Your task to perform on an android device: star an email in the gmail app Image 0: 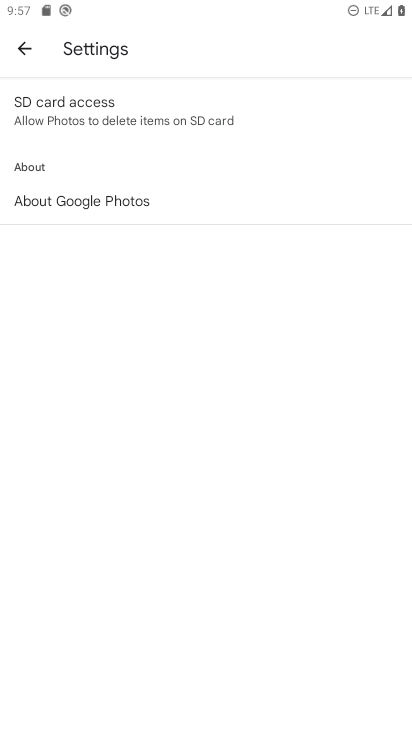
Step 0: press home button
Your task to perform on an android device: star an email in the gmail app Image 1: 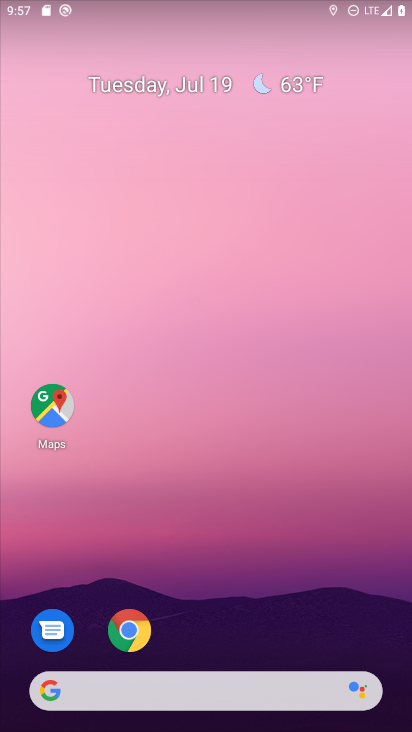
Step 1: drag from (210, 690) to (220, 66)
Your task to perform on an android device: star an email in the gmail app Image 2: 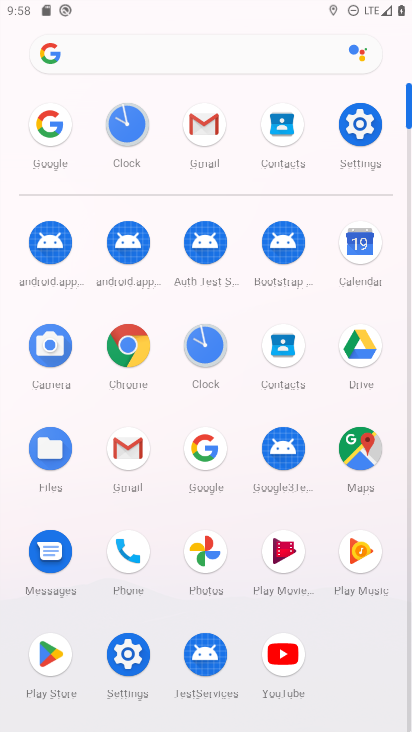
Step 2: click (203, 121)
Your task to perform on an android device: star an email in the gmail app Image 3: 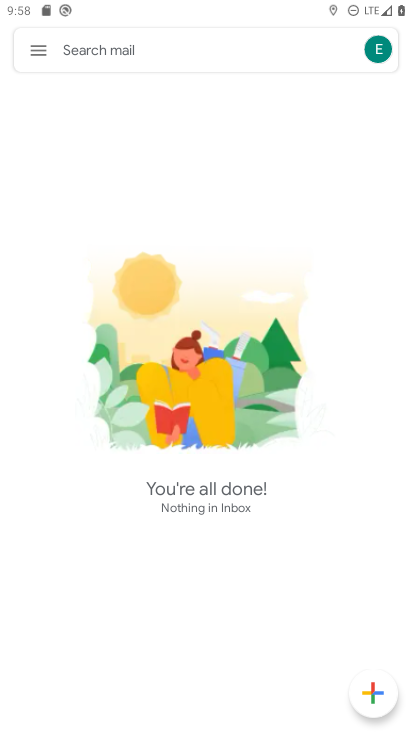
Step 3: click (42, 43)
Your task to perform on an android device: star an email in the gmail app Image 4: 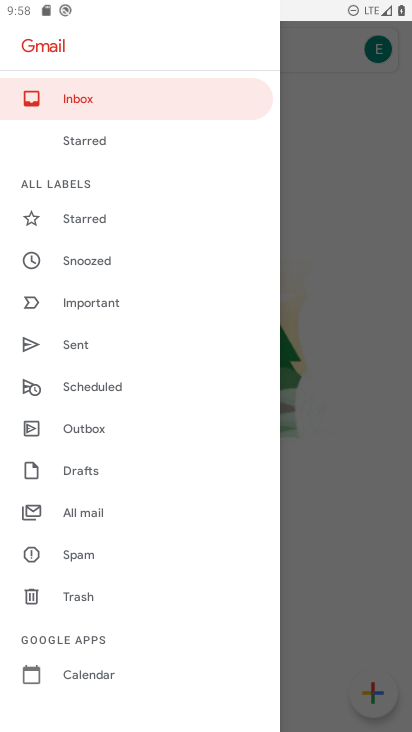
Step 4: click (89, 508)
Your task to perform on an android device: star an email in the gmail app Image 5: 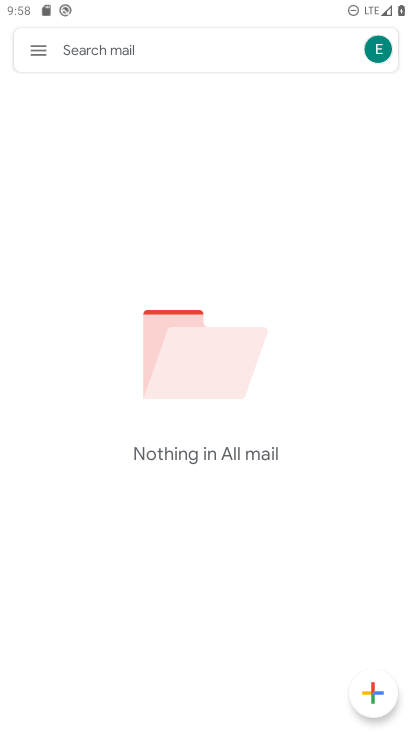
Step 5: click (37, 55)
Your task to perform on an android device: star an email in the gmail app Image 6: 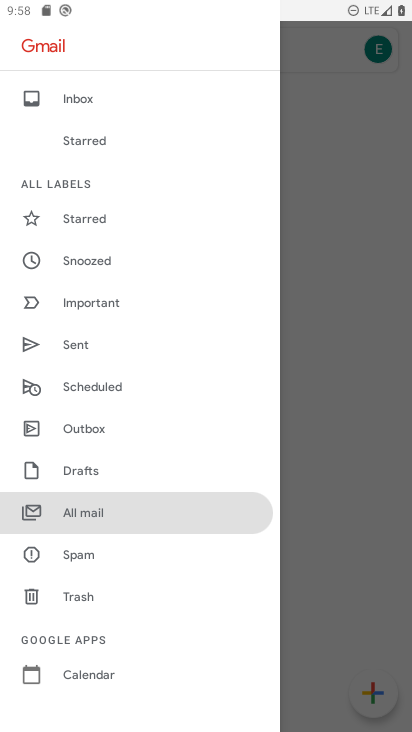
Step 6: click (76, 215)
Your task to perform on an android device: star an email in the gmail app Image 7: 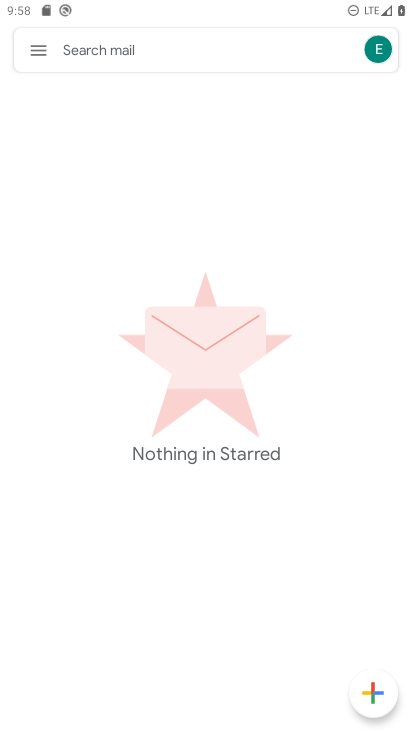
Step 7: click (32, 52)
Your task to perform on an android device: star an email in the gmail app Image 8: 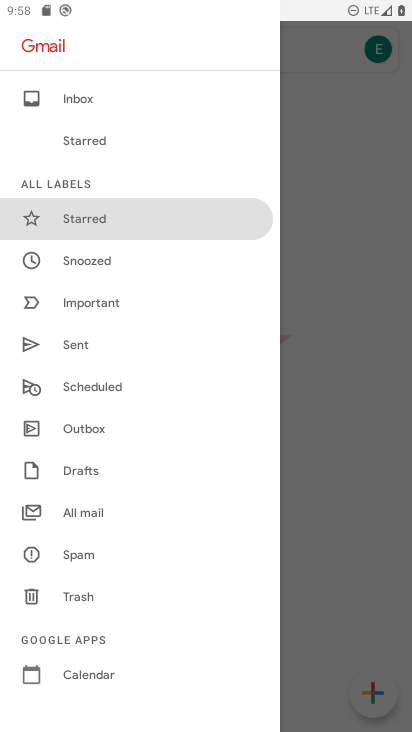
Step 8: click (97, 258)
Your task to perform on an android device: star an email in the gmail app Image 9: 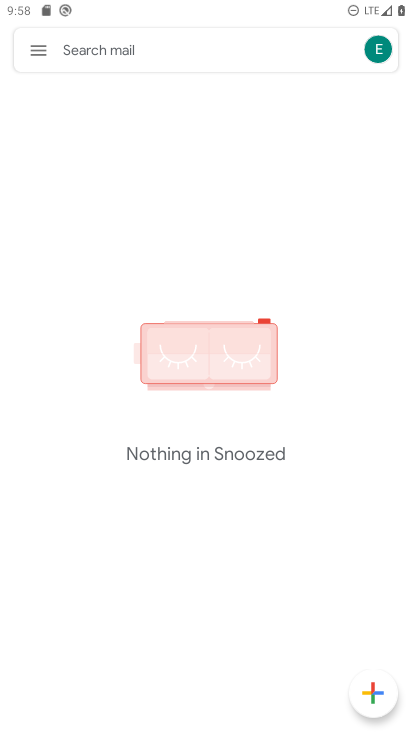
Step 9: click (36, 54)
Your task to perform on an android device: star an email in the gmail app Image 10: 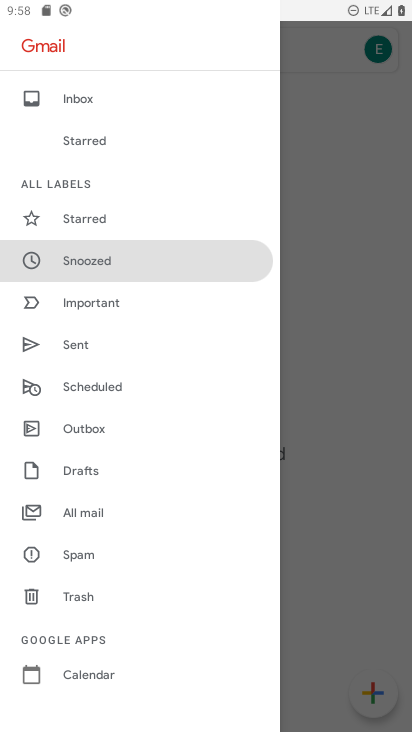
Step 10: click (82, 303)
Your task to perform on an android device: star an email in the gmail app Image 11: 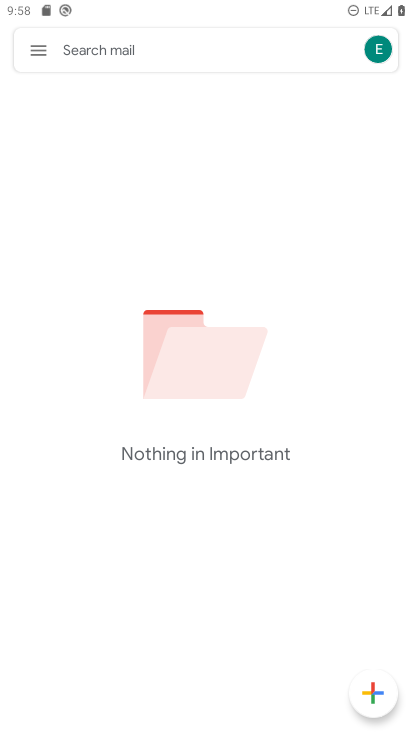
Step 11: click (46, 50)
Your task to perform on an android device: star an email in the gmail app Image 12: 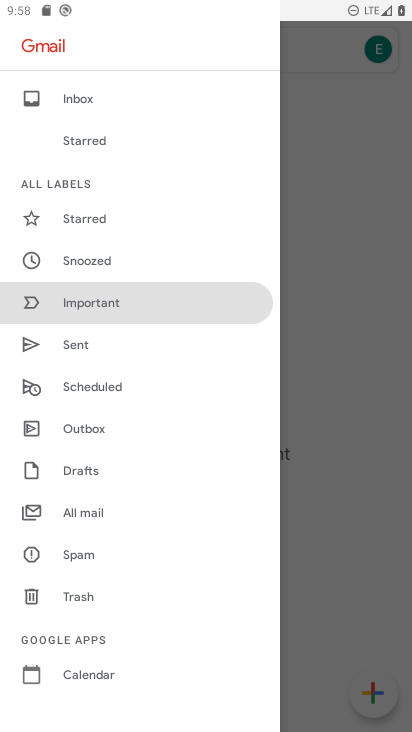
Step 12: click (83, 349)
Your task to perform on an android device: star an email in the gmail app Image 13: 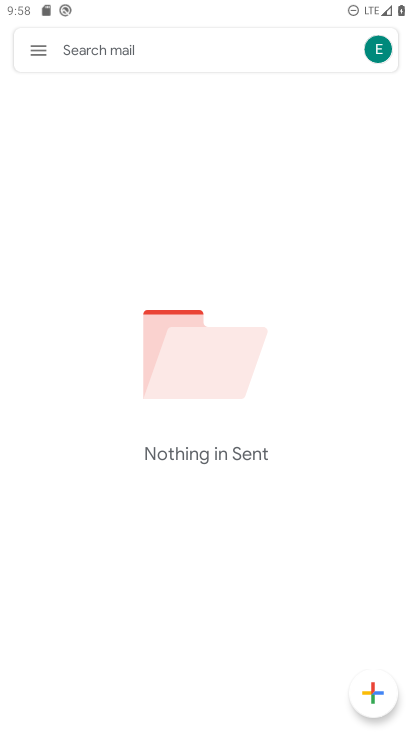
Step 13: click (37, 44)
Your task to perform on an android device: star an email in the gmail app Image 14: 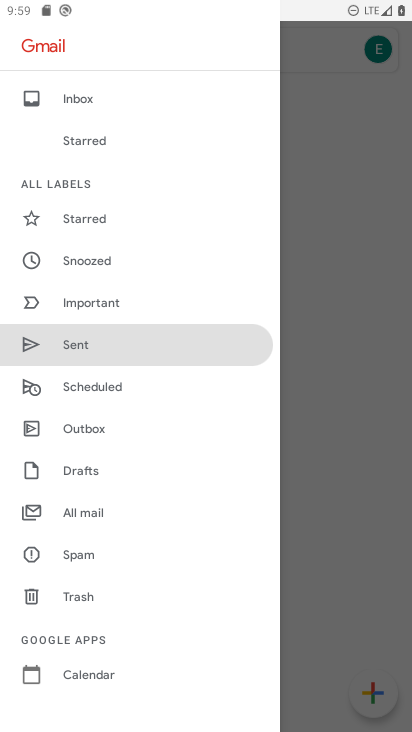
Step 14: click (93, 386)
Your task to perform on an android device: star an email in the gmail app Image 15: 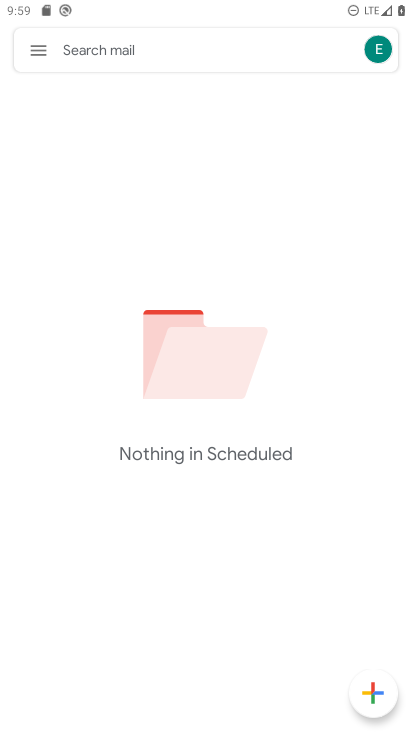
Step 15: click (43, 57)
Your task to perform on an android device: star an email in the gmail app Image 16: 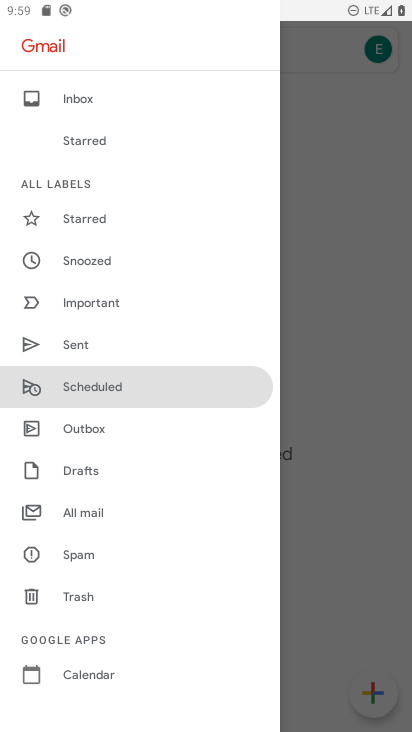
Step 16: click (67, 427)
Your task to perform on an android device: star an email in the gmail app Image 17: 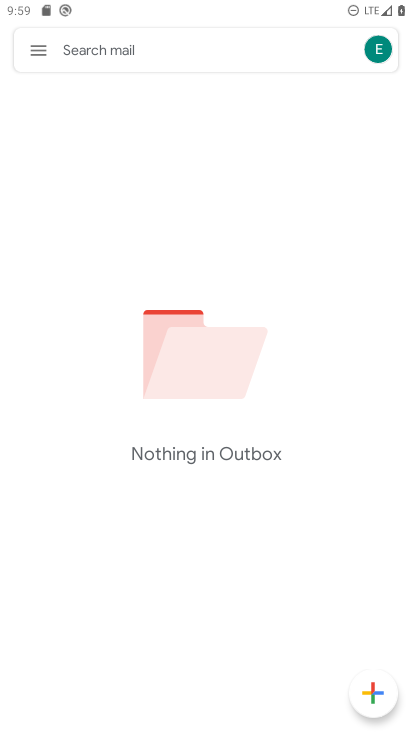
Step 17: click (40, 50)
Your task to perform on an android device: star an email in the gmail app Image 18: 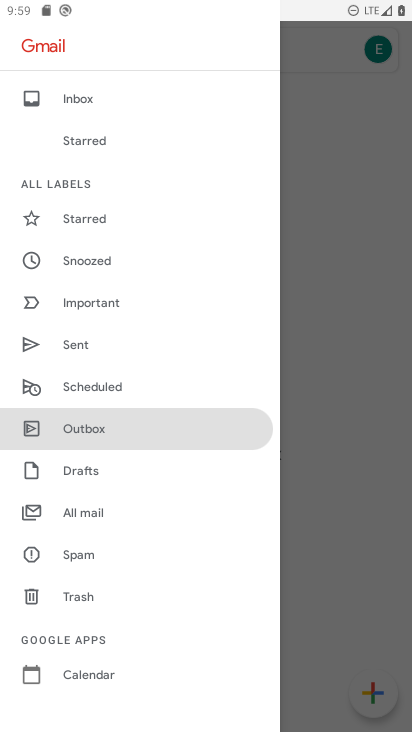
Step 18: click (84, 472)
Your task to perform on an android device: star an email in the gmail app Image 19: 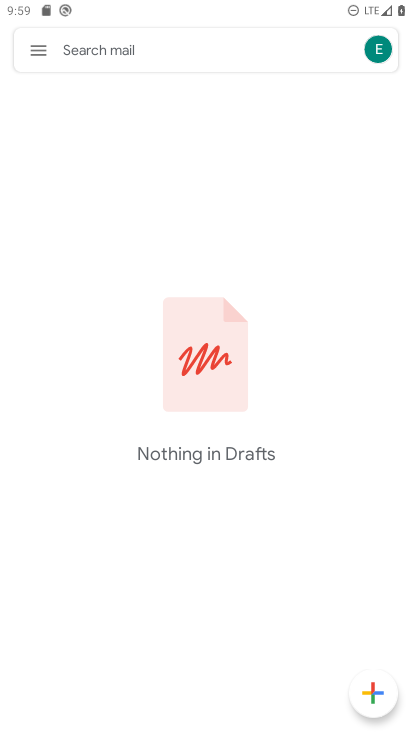
Step 19: click (46, 57)
Your task to perform on an android device: star an email in the gmail app Image 20: 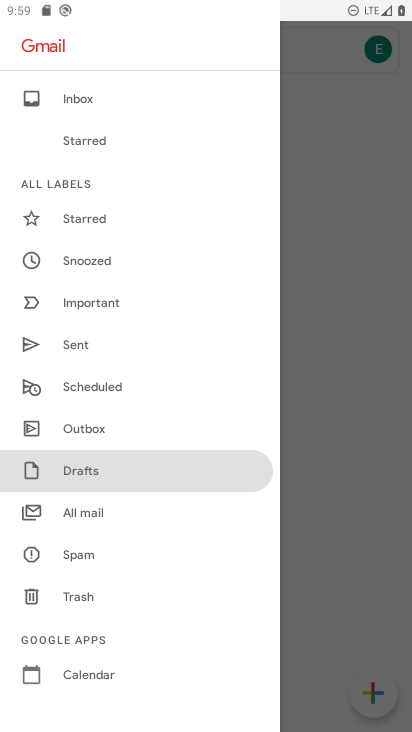
Step 20: click (64, 521)
Your task to perform on an android device: star an email in the gmail app Image 21: 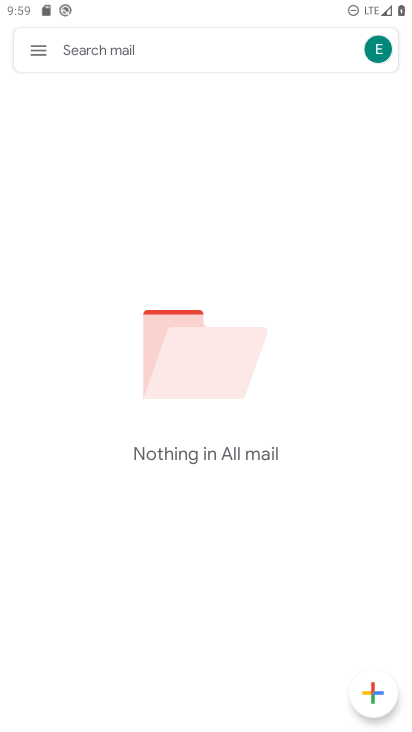
Step 21: click (38, 51)
Your task to perform on an android device: star an email in the gmail app Image 22: 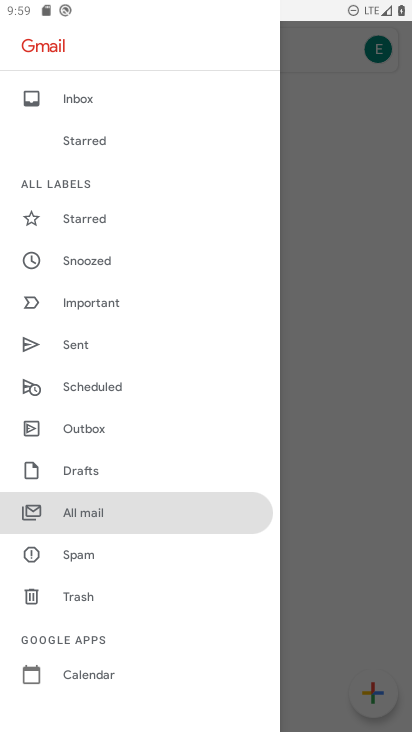
Step 22: click (101, 551)
Your task to perform on an android device: star an email in the gmail app Image 23: 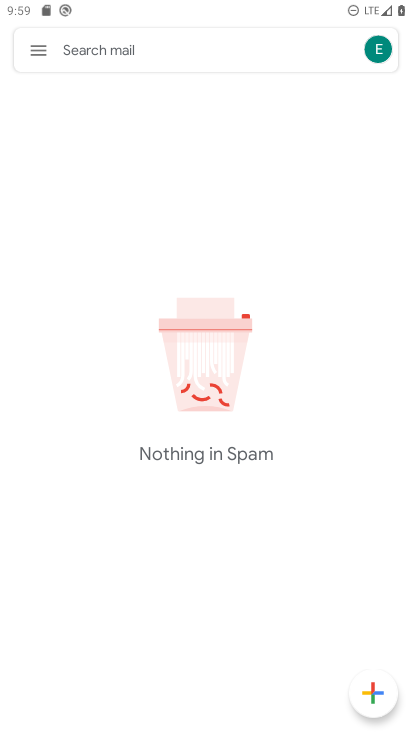
Step 23: task complete